Your task to perform on an android device: turn smart compose on in the gmail app Image 0: 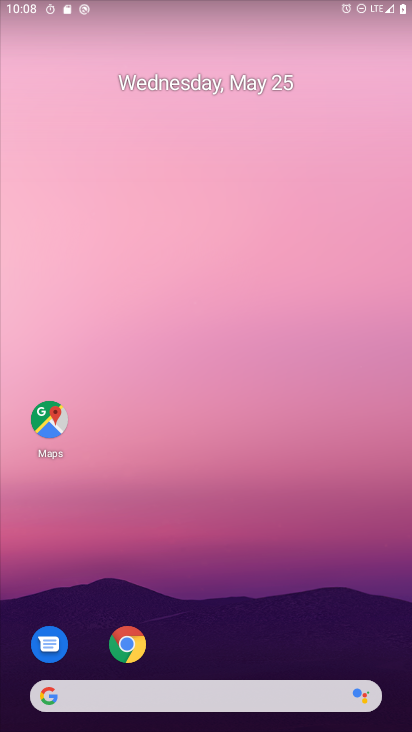
Step 0: drag from (291, 632) to (219, 105)
Your task to perform on an android device: turn smart compose on in the gmail app Image 1: 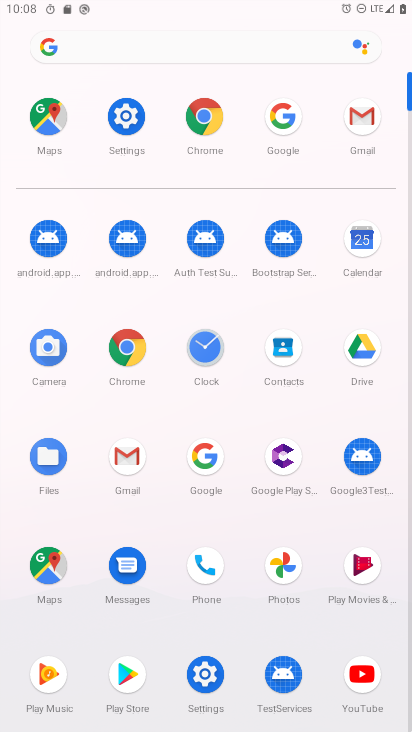
Step 1: click (140, 460)
Your task to perform on an android device: turn smart compose on in the gmail app Image 2: 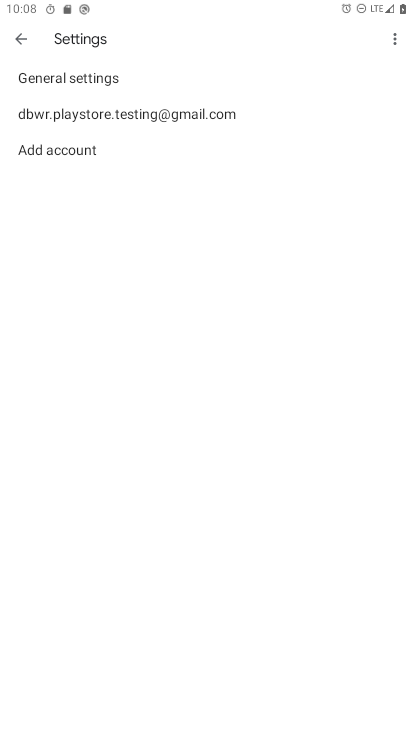
Step 2: click (203, 117)
Your task to perform on an android device: turn smart compose on in the gmail app Image 3: 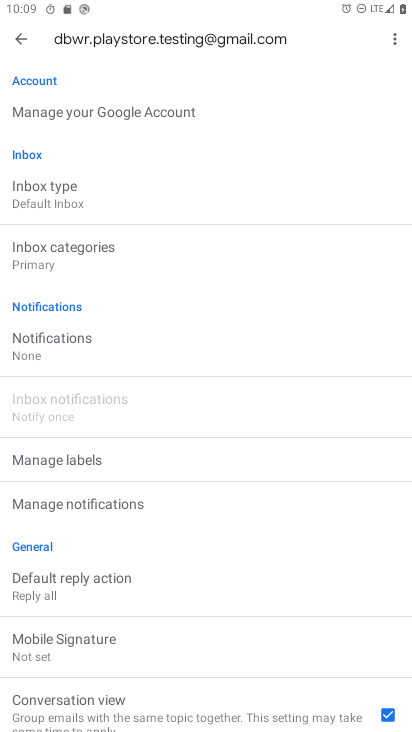
Step 3: task complete